Your task to perform on an android device: Search for pizza restaurants on Maps Image 0: 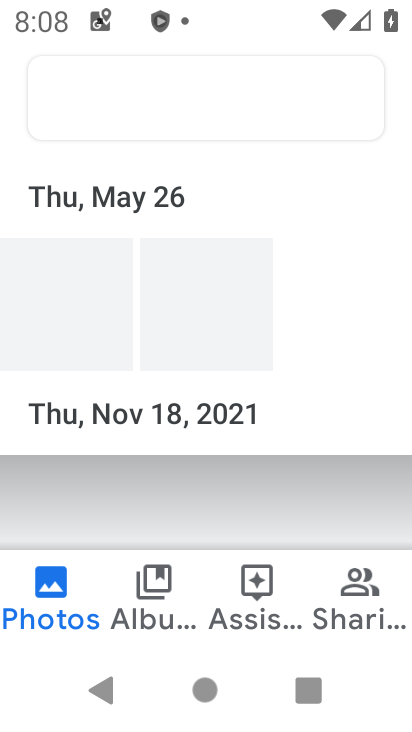
Step 0: press home button
Your task to perform on an android device: Search for pizza restaurants on Maps Image 1: 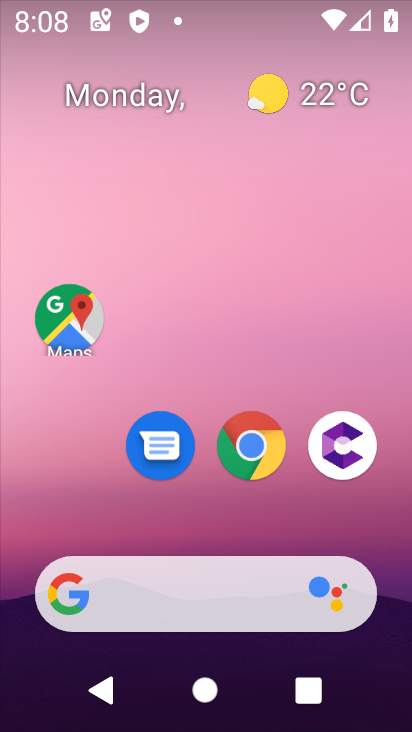
Step 1: click (67, 324)
Your task to perform on an android device: Search for pizza restaurants on Maps Image 2: 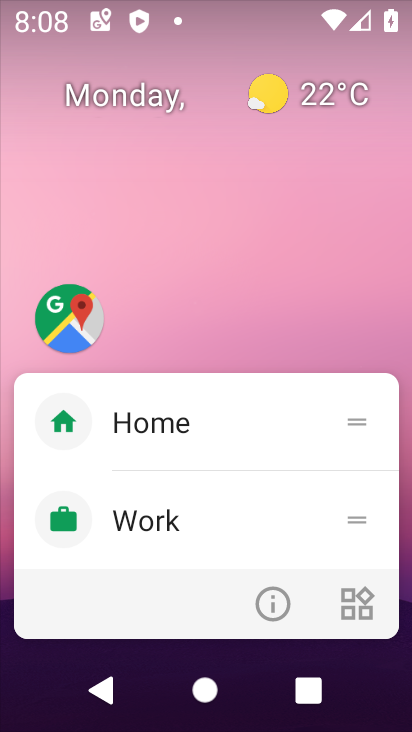
Step 2: click (67, 324)
Your task to perform on an android device: Search for pizza restaurants on Maps Image 3: 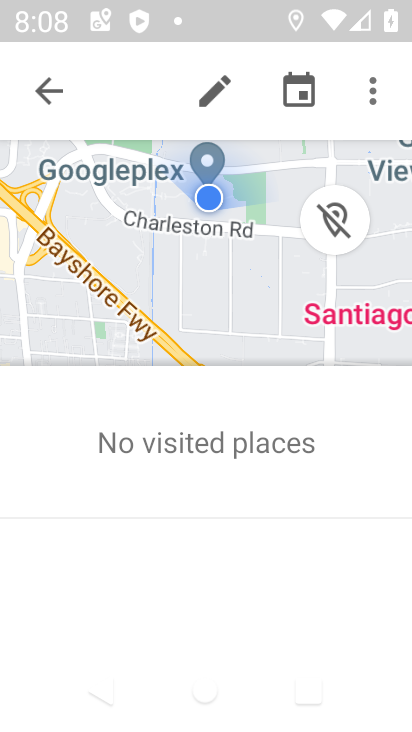
Step 3: click (46, 98)
Your task to perform on an android device: Search for pizza restaurants on Maps Image 4: 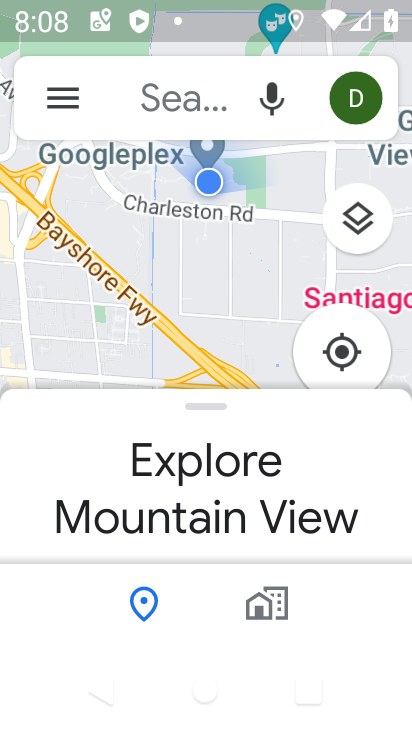
Step 4: click (184, 89)
Your task to perform on an android device: Search for pizza restaurants on Maps Image 5: 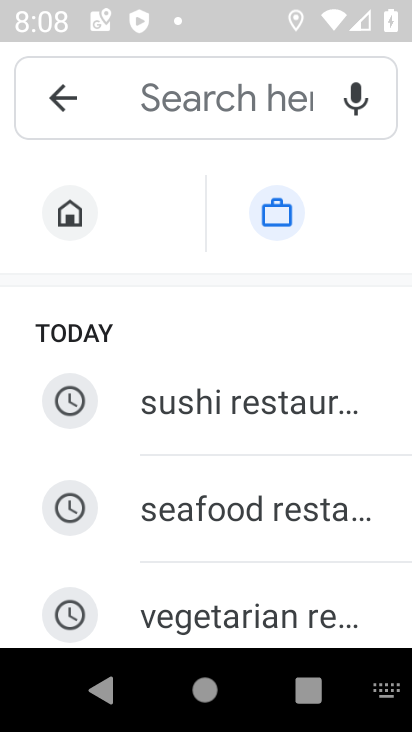
Step 5: type "pizza restaurants"
Your task to perform on an android device: Search for pizza restaurants on Maps Image 6: 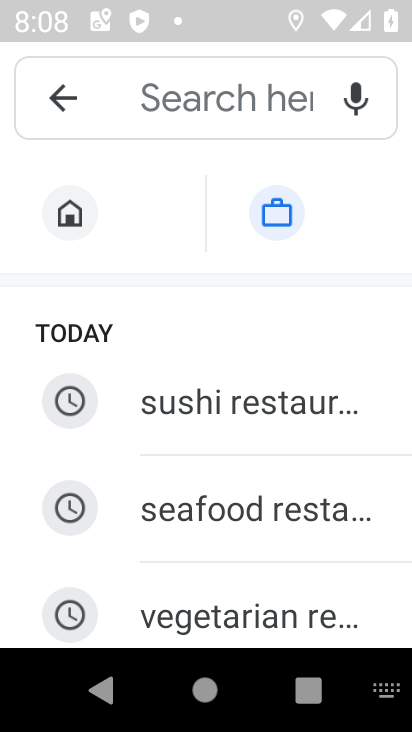
Step 6: click (208, 81)
Your task to perform on an android device: Search for pizza restaurants on Maps Image 7: 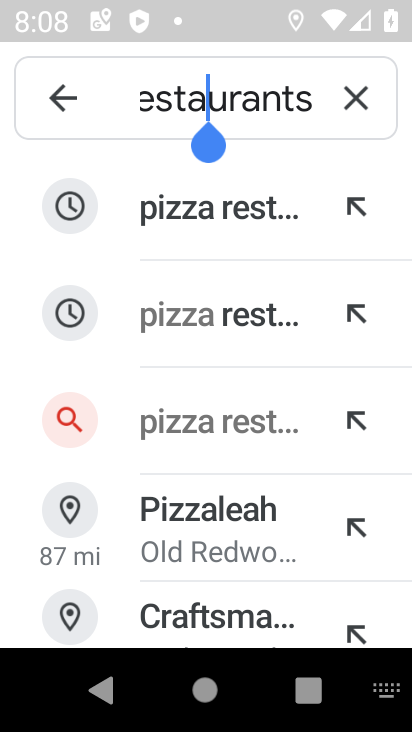
Step 7: click (177, 211)
Your task to perform on an android device: Search for pizza restaurants on Maps Image 8: 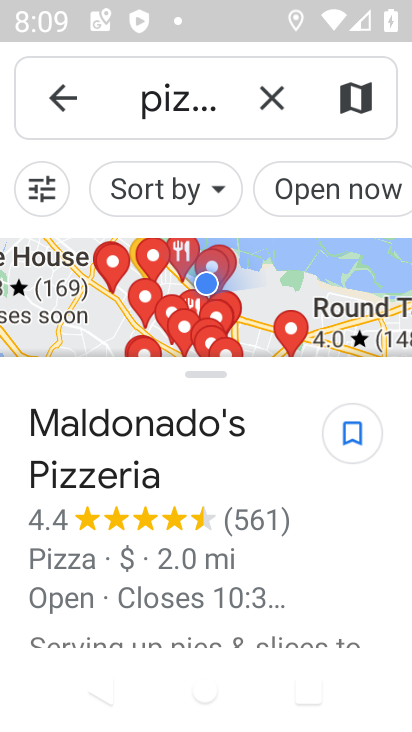
Step 8: task complete